Your task to perform on an android device: Open Google Maps Image 0: 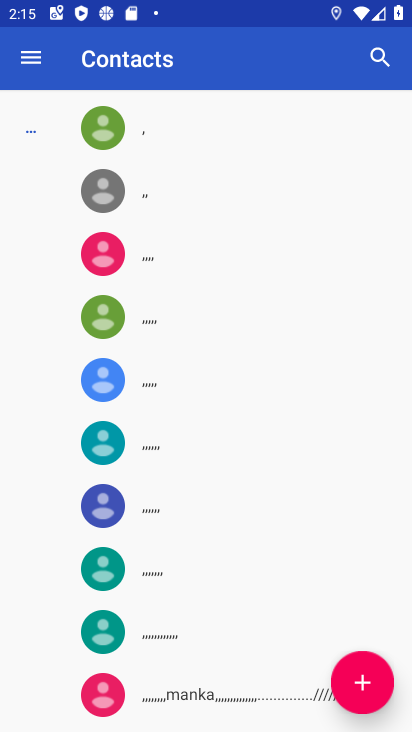
Step 0: press home button
Your task to perform on an android device: Open Google Maps Image 1: 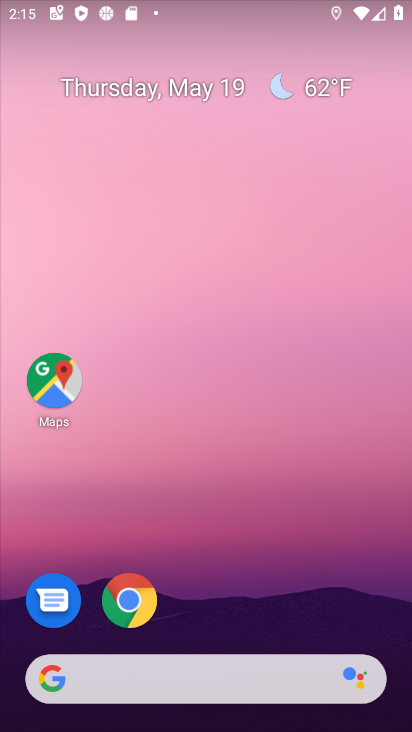
Step 1: click (67, 366)
Your task to perform on an android device: Open Google Maps Image 2: 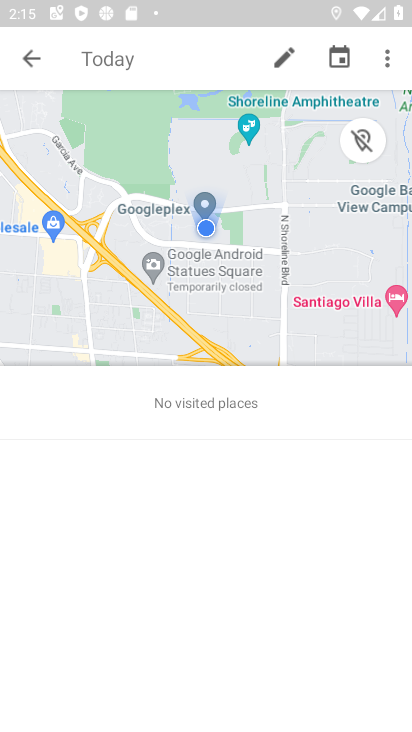
Step 2: click (21, 59)
Your task to perform on an android device: Open Google Maps Image 3: 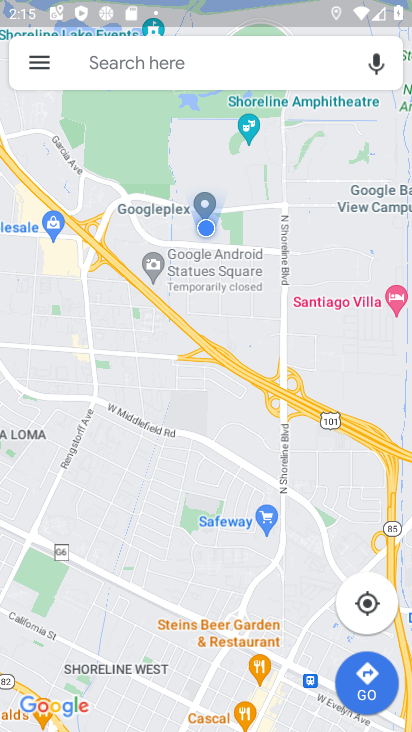
Step 3: task complete